Your task to perform on an android device: Open the calendar app, open the side menu, and click the "Day" option Image 0: 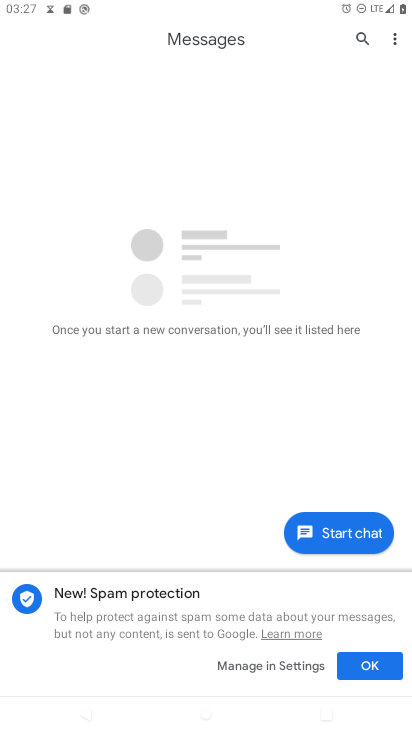
Step 0: press home button
Your task to perform on an android device: Open the calendar app, open the side menu, and click the "Day" option Image 1: 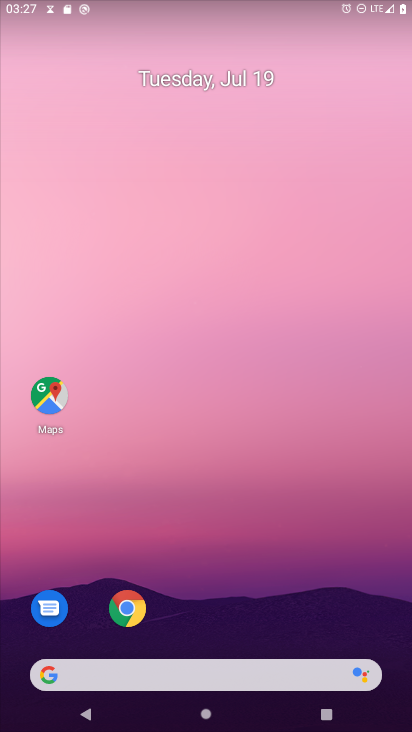
Step 1: drag from (311, 667) to (370, 125)
Your task to perform on an android device: Open the calendar app, open the side menu, and click the "Day" option Image 2: 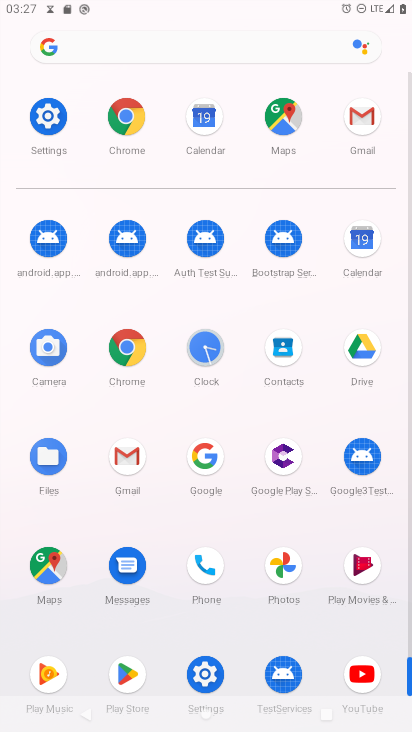
Step 2: click (370, 220)
Your task to perform on an android device: Open the calendar app, open the side menu, and click the "Day" option Image 3: 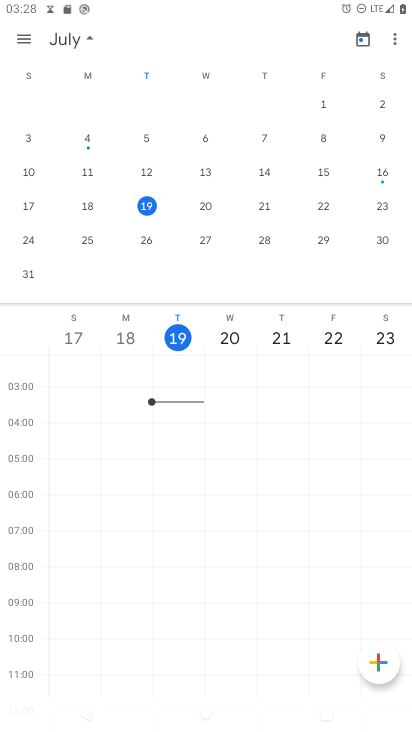
Step 3: click (31, 36)
Your task to perform on an android device: Open the calendar app, open the side menu, and click the "Day" option Image 4: 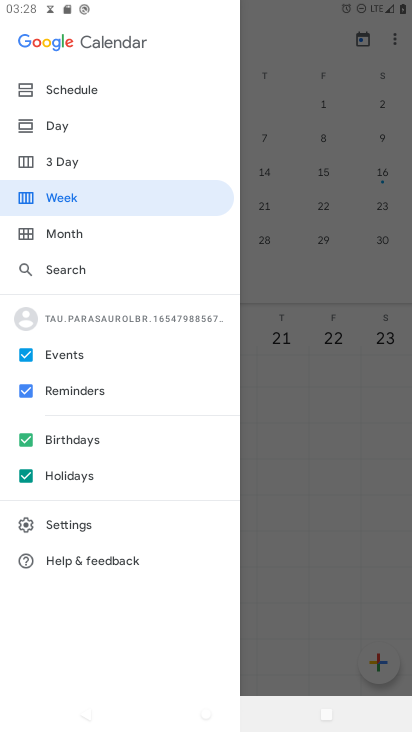
Step 4: click (62, 124)
Your task to perform on an android device: Open the calendar app, open the side menu, and click the "Day" option Image 5: 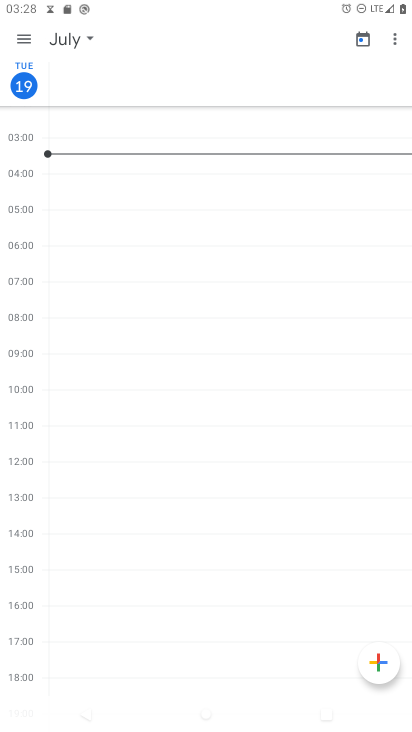
Step 5: click (27, 33)
Your task to perform on an android device: Open the calendar app, open the side menu, and click the "Day" option Image 6: 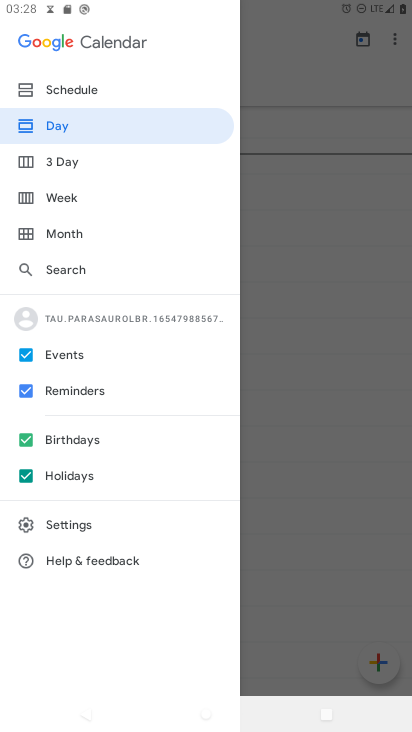
Step 6: click (65, 124)
Your task to perform on an android device: Open the calendar app, open the side menu, and click the "Day" option Image 7: 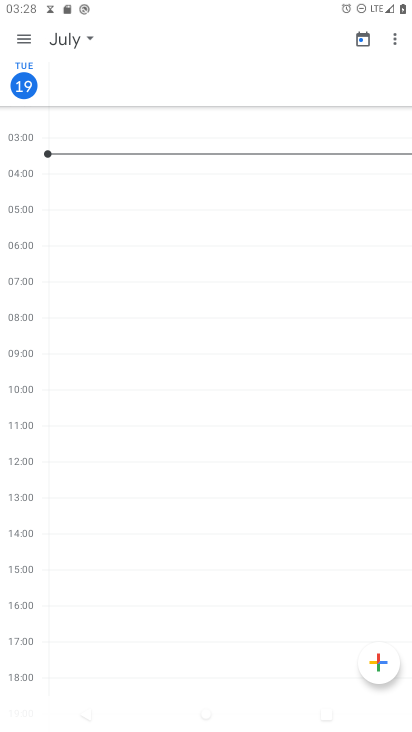
Step 7: task complete